Your task to perform on an android device: change the clock display to show seconds Image 0: 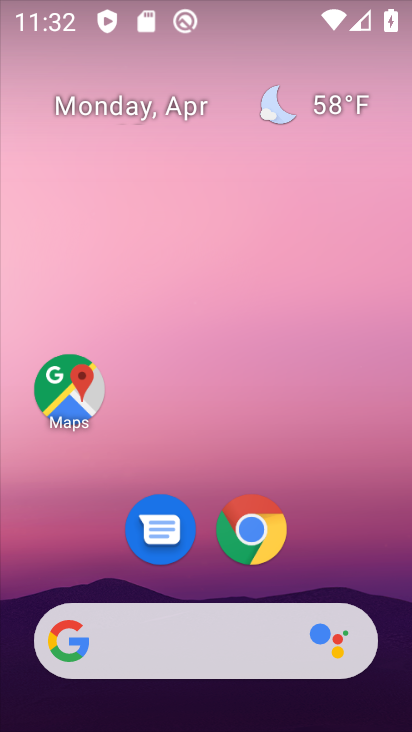
Step 0: drag from (361, 587) to (255, 70)
Your task to perform on an android device: change the clock display to show seconds Image 1: 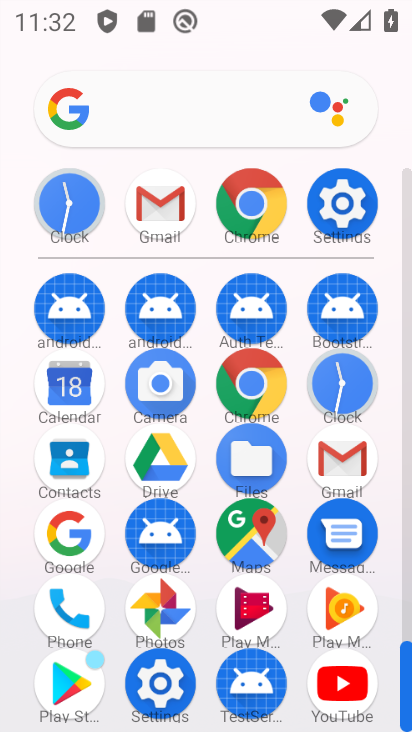
Step 1: click (353, 386)
Your task to perform on an android device: change the clock display to show seconds Image 2: 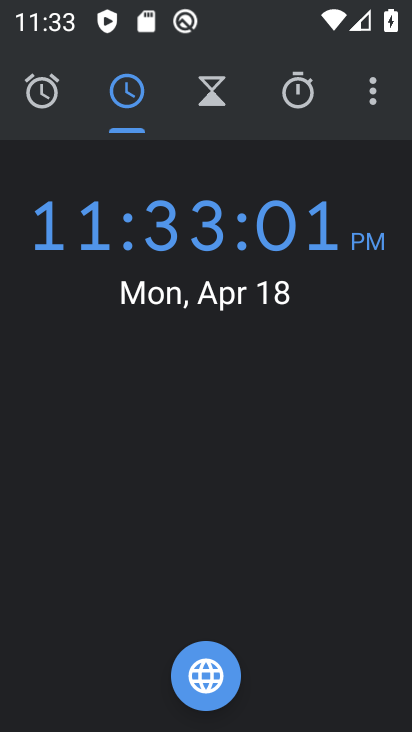
Step 2: click (370, 94)
Your task to perform on an android device: change the clock display to show seconds Image 3: 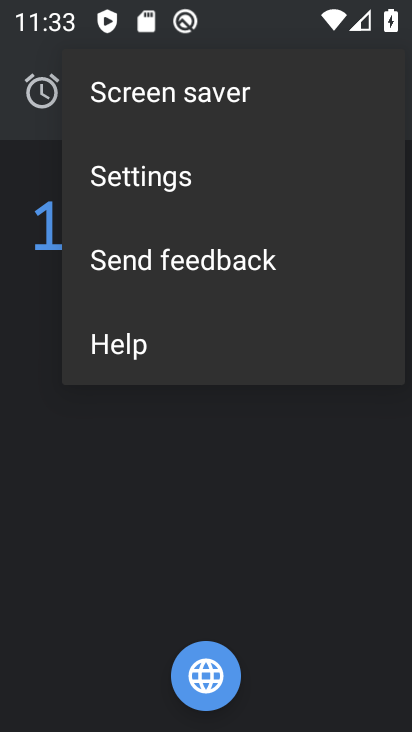
Step 3: click (163, 181)
Your task to perform on an android device: change the clock display to show seconds Image 4: 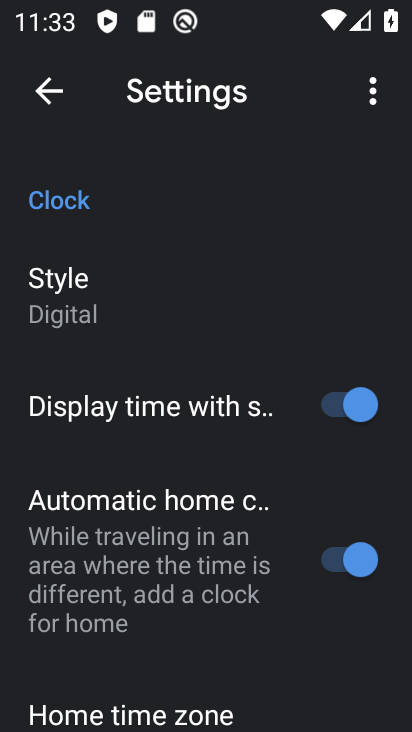
Step 4: click (324, 401)
Your task to perform on an android device: change the clock display to show seconds Image 5: 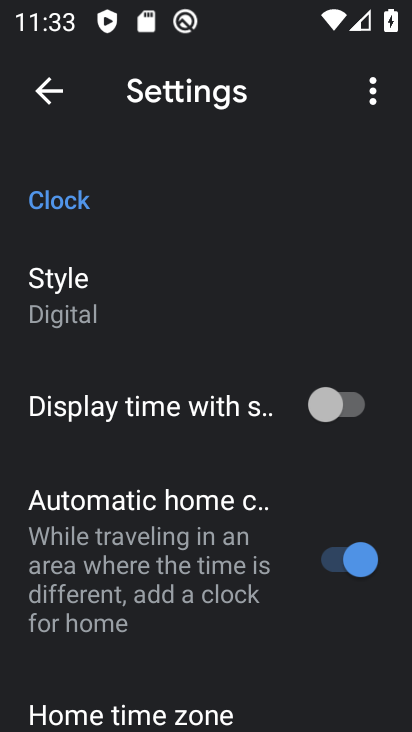
Step 5: task complete